Your task to perform on an android device: change the clock display to analog Image 0: 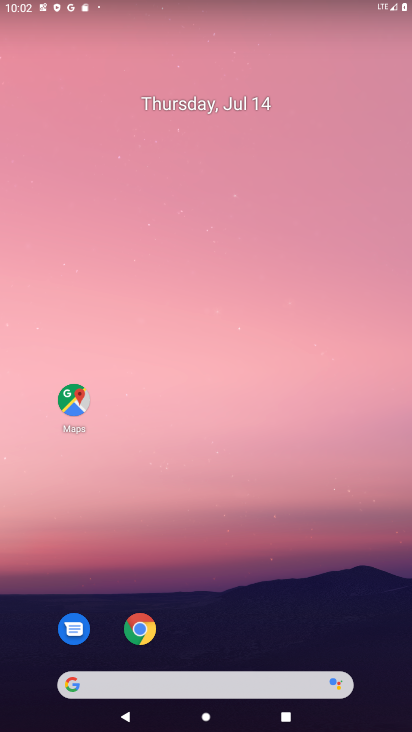
Step 0: drag from (84, 493) to (309, 85)
Your task to perform on an android device: change the clock display to analog Image 1: 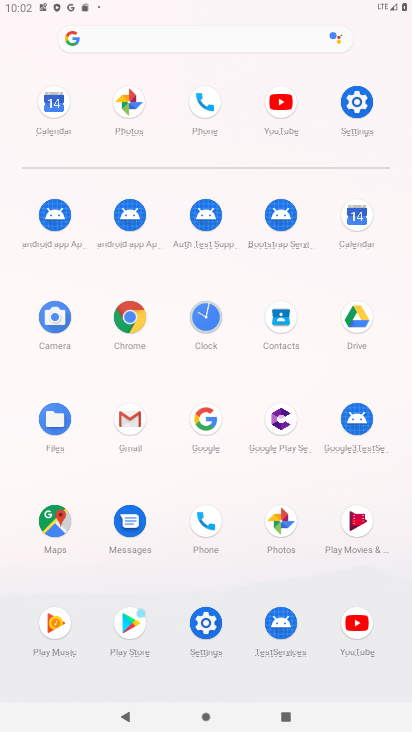
Step 1: click (221, 318)
Your task to perform on an android device: change the clock display to analog Image 2: 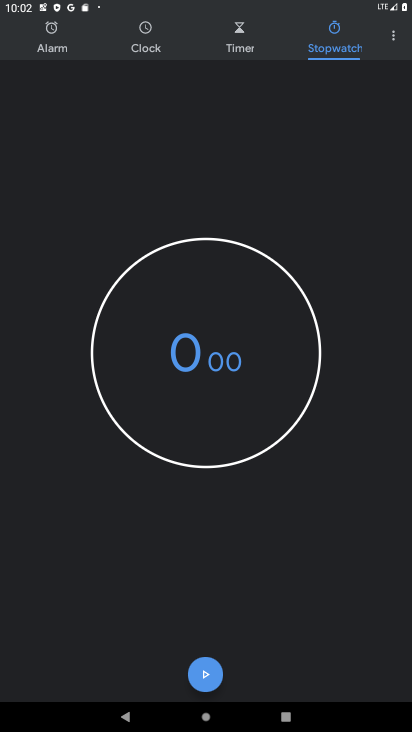
Step 2: click (397, 45)
Your task to perform on an android device: change the clock display to analog Image 3: 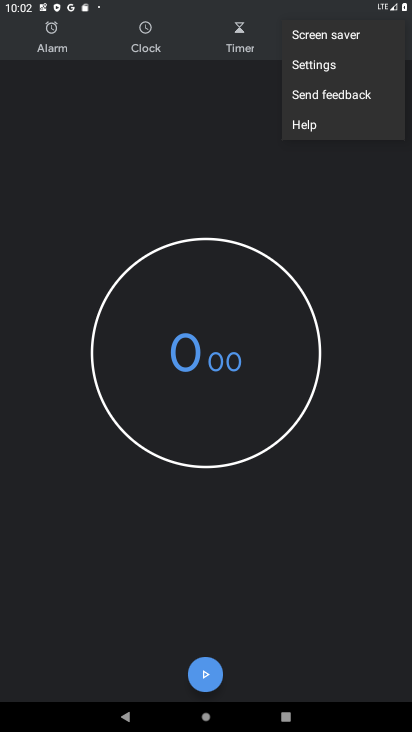
Step 3: click (300, 69)
Your task to perform on an android device: change the clock display to analog Image 4: 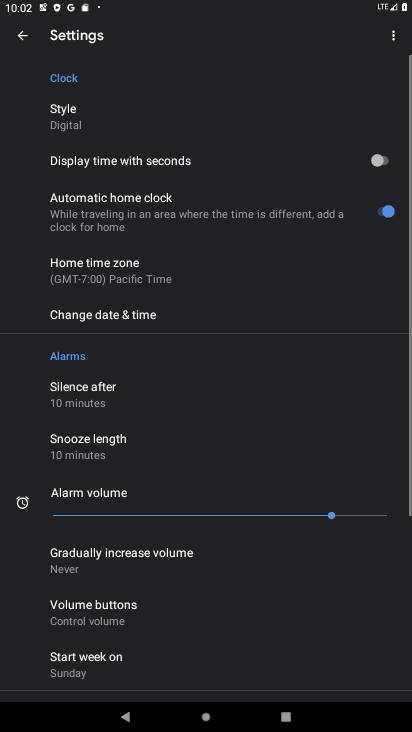
Step 4: click (95, 113)
Your task to perform on an android device: change the clock display to analog Image 5: 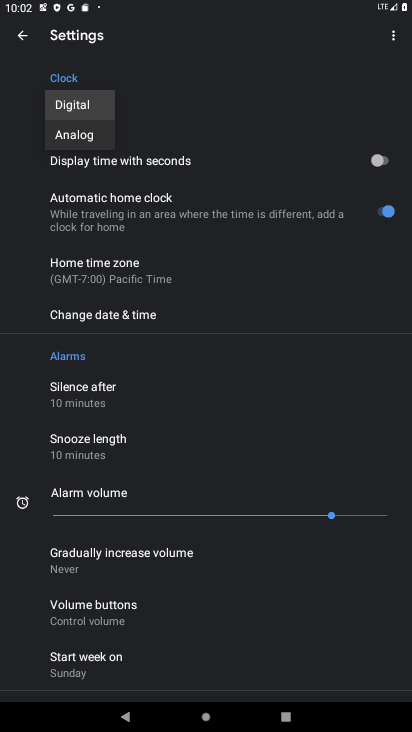
Step 5: click (80, 134)
Your task to perform on an android device: change the clock display to analog Image 6: 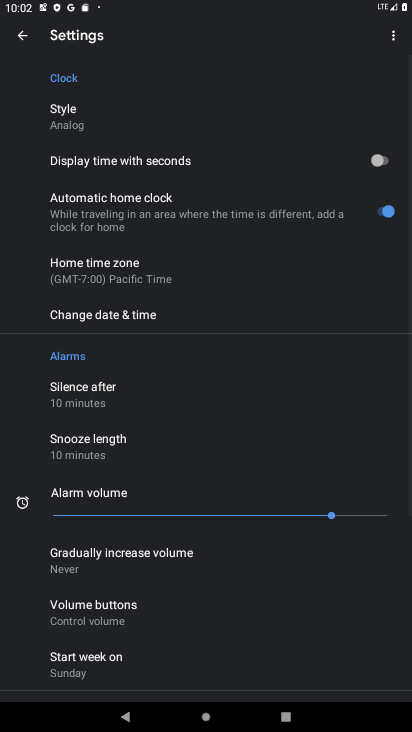
Step 6: task complete